Your task to perform on an android device: Open the web browser Image 0: 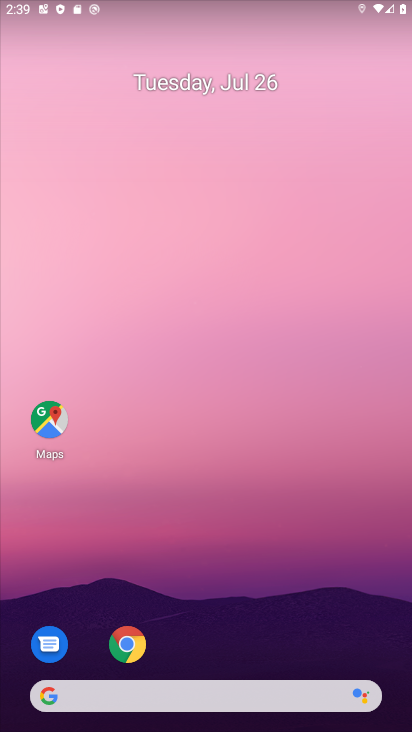
Step 0: press home button
Your task to perform on an android device: Open the web browser Image 1: 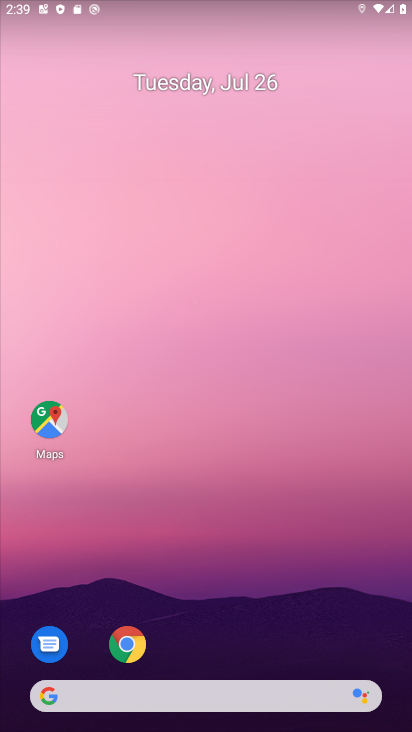
Step 1: click (53, 698)
Your task to perform on an android device: Open the web browser Image 2: 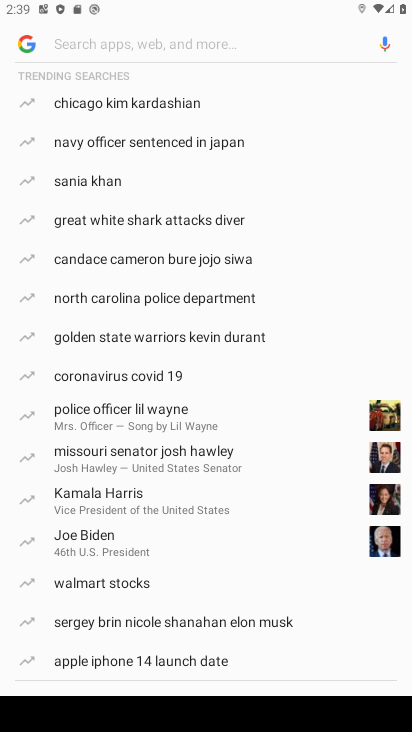
Step 2: click (26, 38)
Your task to perform on an android device: Open the web browser Image 3: 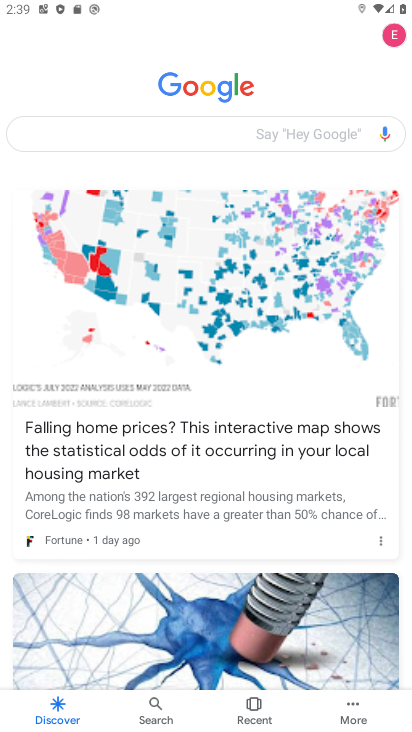
Step 3: task complete